Your task to perform on an android device: turn off airplane mode Image 0: 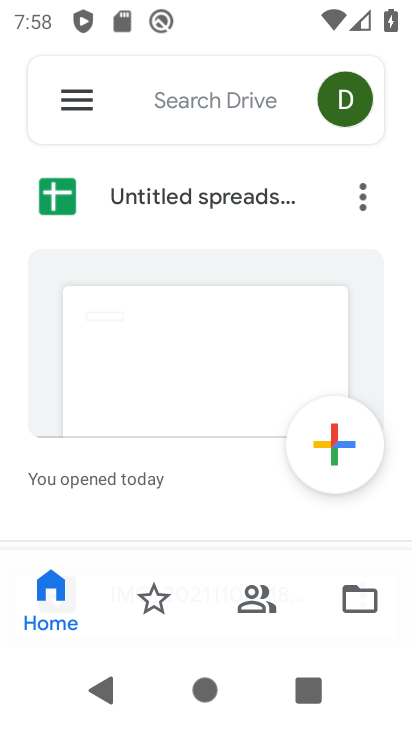
Step 0: press home button
Your task to perform on an android device: turn off airplane mode Image 1: 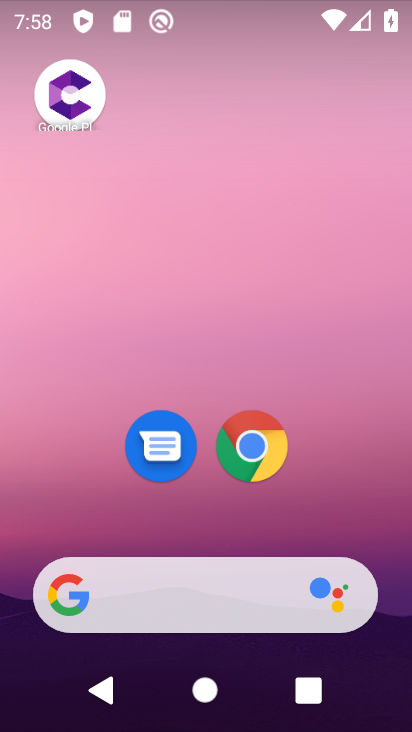
Step 1: task complete